Your task to perform on an android device: Go to CNN.com Image 0: 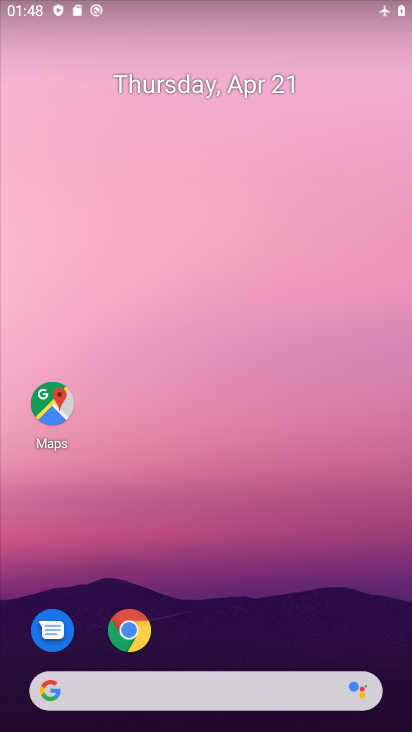
Step 0: click (141, 633)
Your task to perform on an android device: Go to CNN.com Image 1: 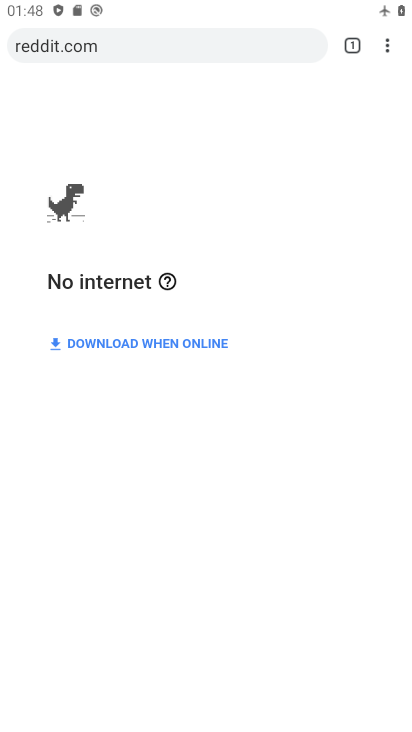
Step 1: drag from (279, 0) to (167, 522)
Your task to perform on an android device: Go to CNN.com Image 2: 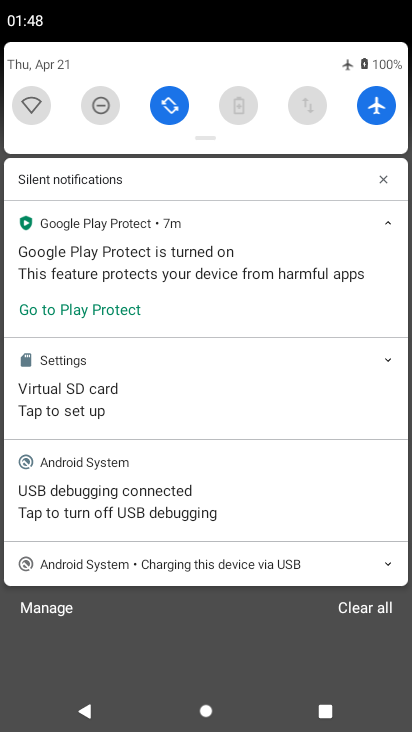
Step 2: click (380, 97)
Your task to perform on an android device: Go to CNN.com Image 3: 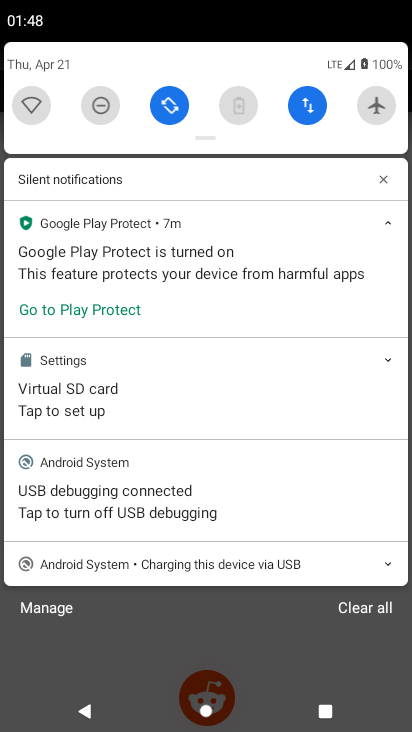
Step 3: press back button
Your task to perform on an android device: Go to CNN.com Image 4: 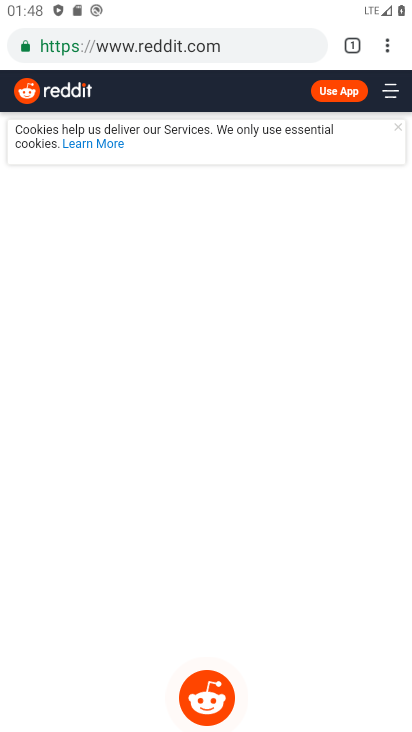
Step 4: click (251, 48)
Your task to perform on an android device: Go to CNN.com Image 5: 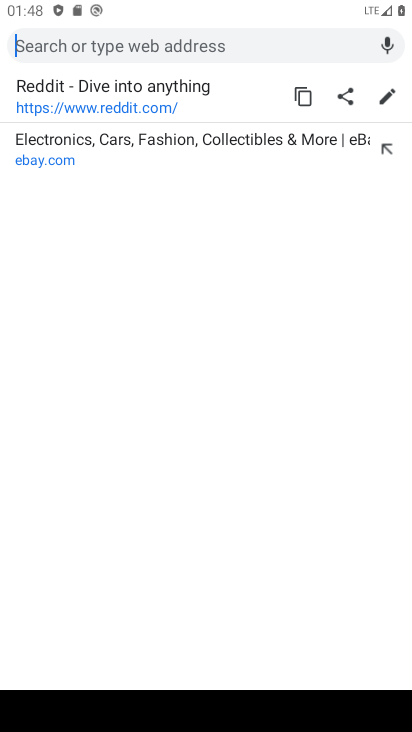
Step 5: type "cnn.com"
Your task to perform on an android device: Go to CNN.com Image 6: 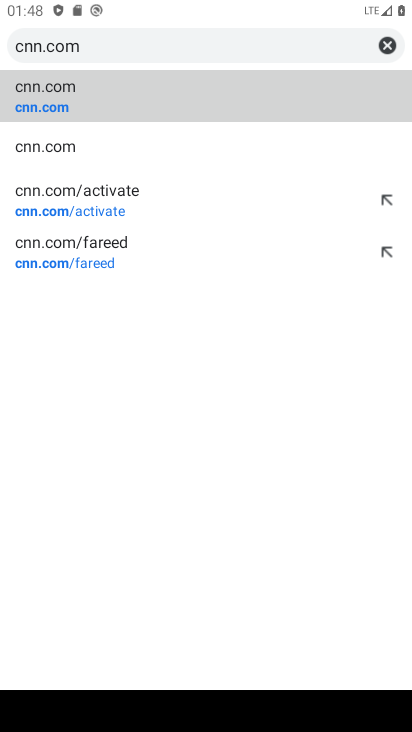
Step 6: click (67, 108)
Your task to perform on an android device: Go to CNN.com Image 7: 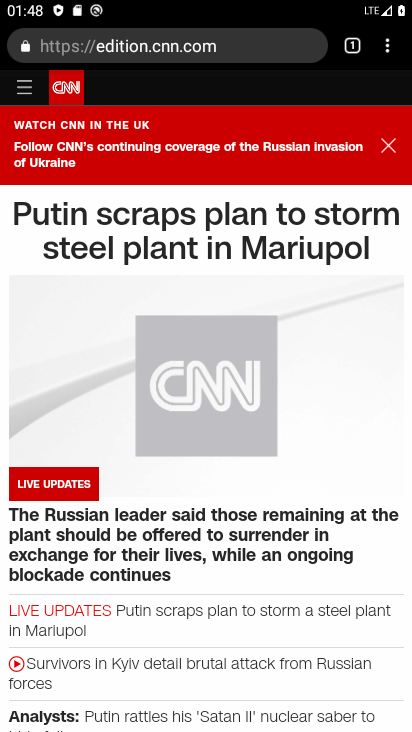
Step 7: task complete